Your task to perform on an android device: Open display settings Image 0: 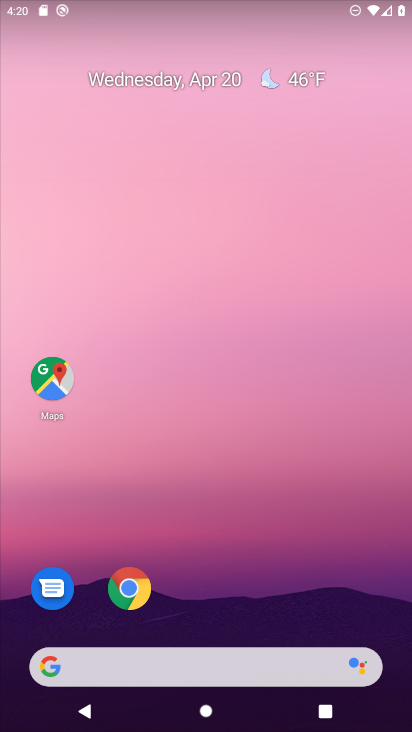
Step 0: drag from (210, 726) to (210, 149)
Your task to perform on an android device: Open display settings Image 1: 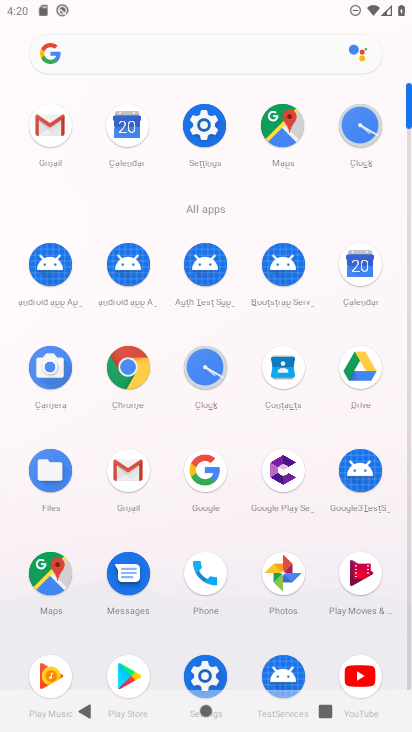
Step 1: click (207, 129)
Your task to perform on an android device: Open display settings Image 2: 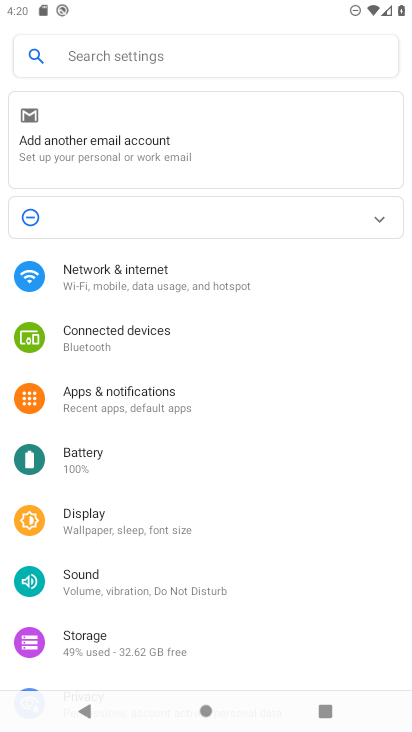
Step 2: click (79, 520)
Your task to perform on an android device: Open display settings Image 3: 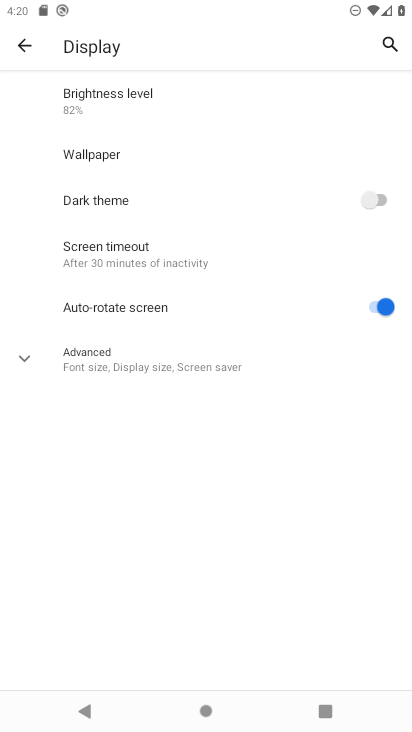
Step 3: task complete